Your task to perform on an android device: Set the phone to "Do not disturb". Image 0: 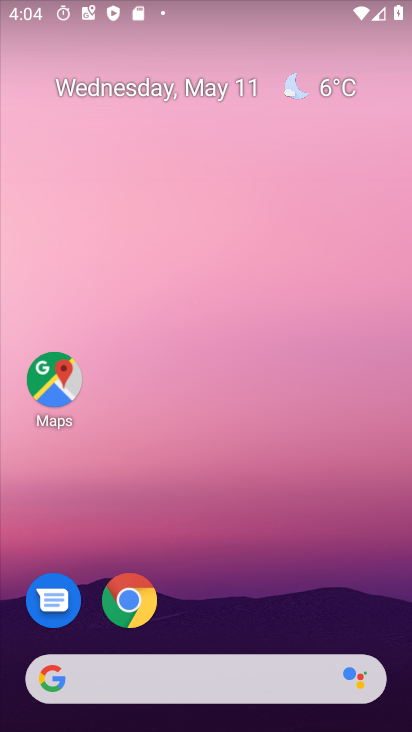
Step 0: drag from (292, 687) to (141, 158)
Your task to perform on an android device: Set the phone to "Do not disturb". Image 1: 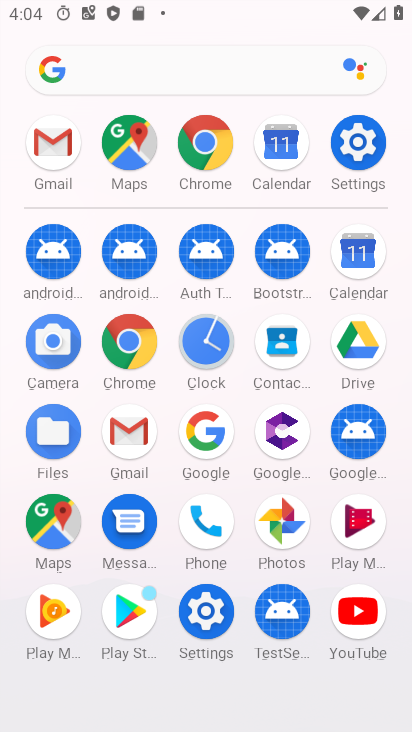
Step 1: click (358, 131)
Your task to perform on an android device: Set the phone to "Do not disturb". Image 2: 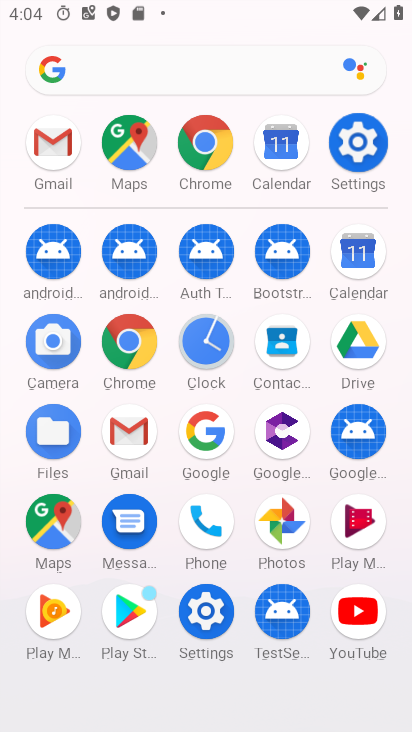
Step 2: click (353, 136)
Your task to perform on an android device: Set the phone to "Do not disturb". Image 3: 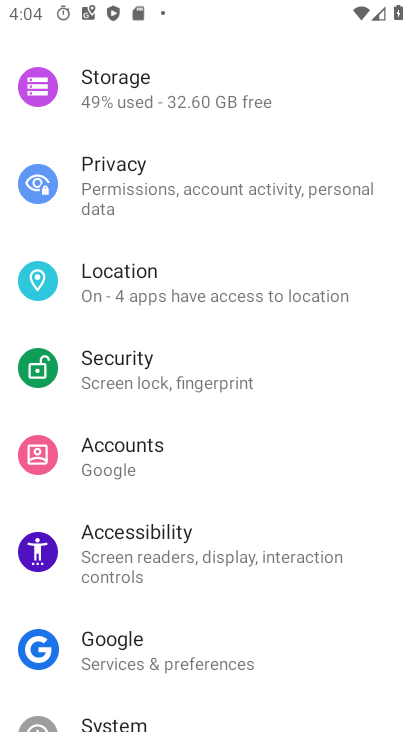
Step 3: drag from (152, 582) to (142, 216)
Your task to perform on an android device: Set the phone to "Do not disturb". Image 4: 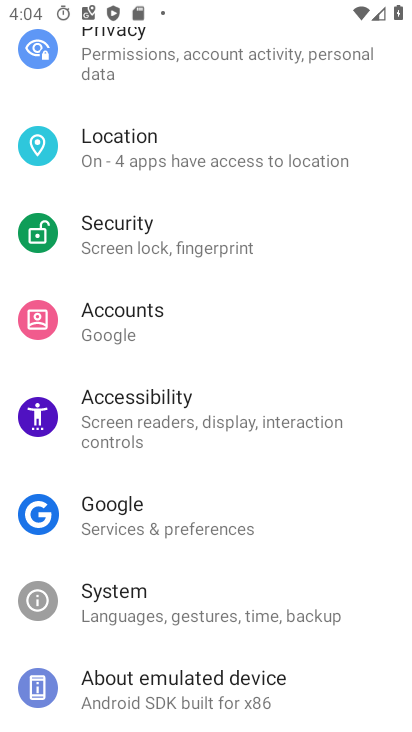
Step 4: drag from (213, 611) to (198, 197)
Your task to perform on an android device: Set the phone to "Do not disturb". Image 5: 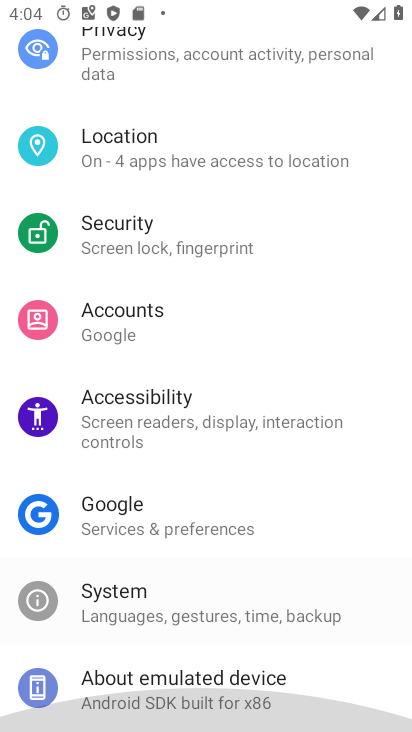
Step 5: drag from (195, 196) to (318, 663)
Your task to perform on an android device: Set the phone to "Do not disturb". Image 6: 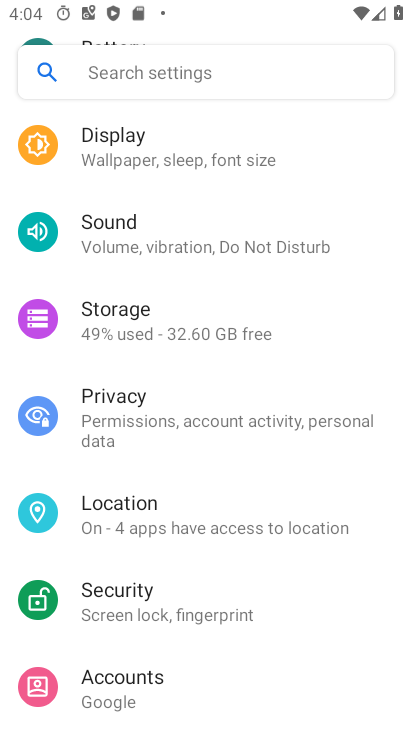
Step 6: drag from (213, 256) to (300, 622)
Your task to perform on an android device: Set the phone to "Do not disturb". Image 7: 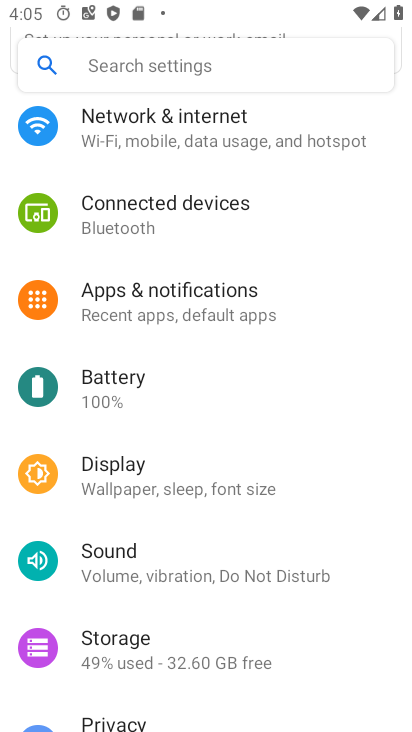
Step 7: drag from (195, 195) to (227, 476)
Your task to perform on an android device: Set the phone to "Do not disturb". Image 8: 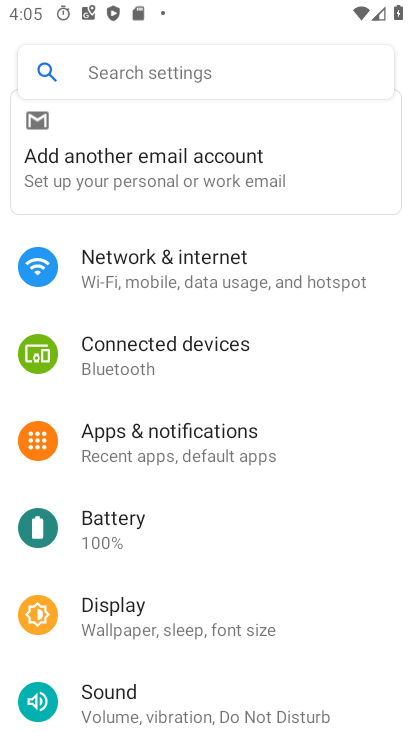
Step 8: click (141, 696)
Your task to perform on an android device: Set the phone to "Do not disturb". Image 9: 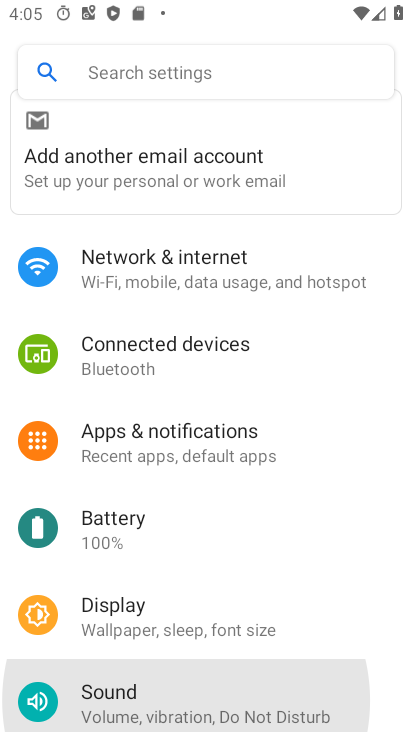
Step 9: click (141, 696)
Your task to perform on an android device: Set the phone to "Do not disturb". Image 10: 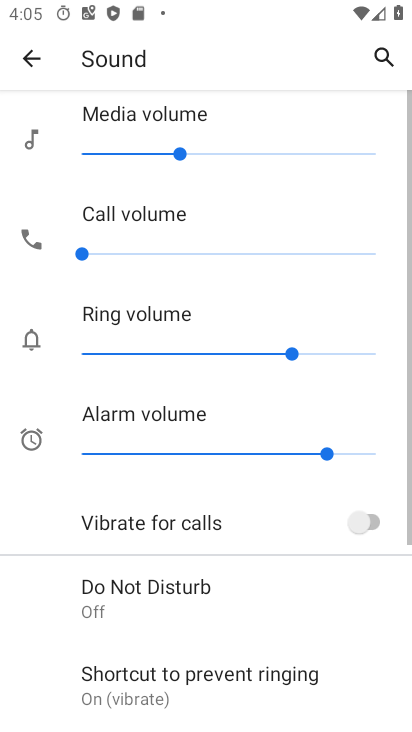
Step 10: task complete